Your task to perform on an android device: turn off javascript in the chrome app Image 0: 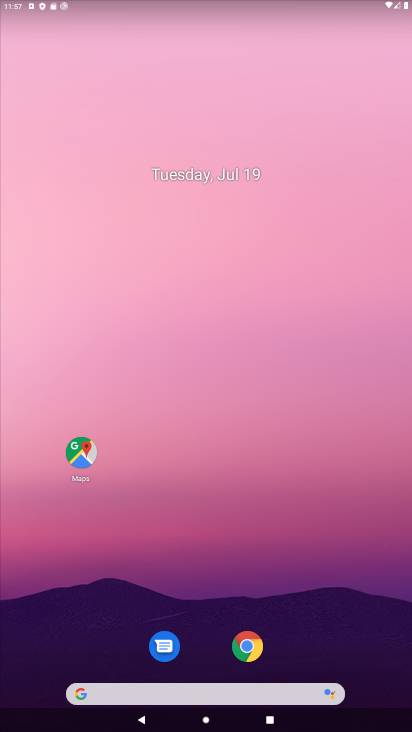
Step 0: click (79, 37)
Your task to perform on an android device: turn off javascript in the chrome app Image 1: 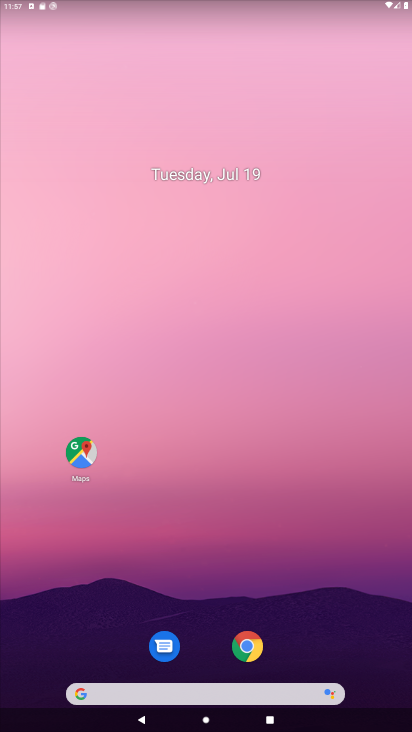
Step 1: click (244, 639)
Your task to perform on an android device: turn off javascript in the chrome app Image 2: 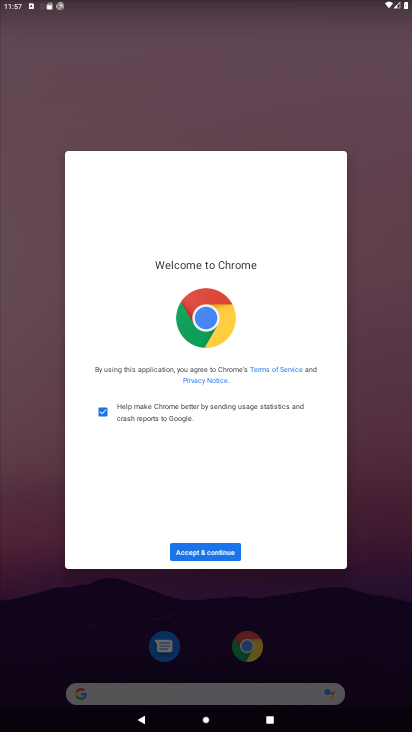
Step 2: click (212, 549)
Your task to perform on an android device: turn off javascript in the chrome app Image 3: 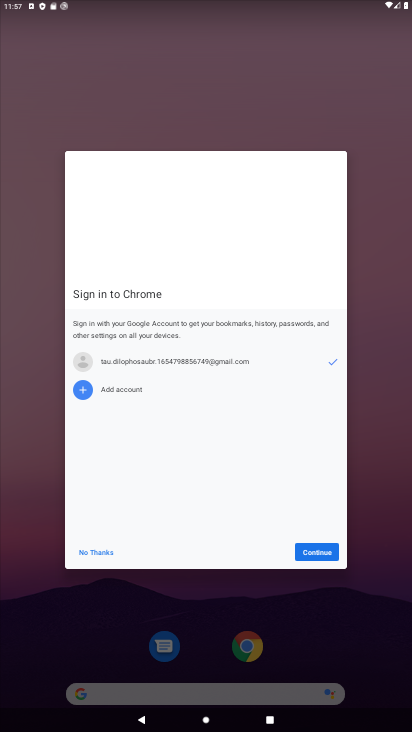
Step 3: click (317, 546)
Your task to perform on an android device: turn off javascript in the chrome app Image 4: 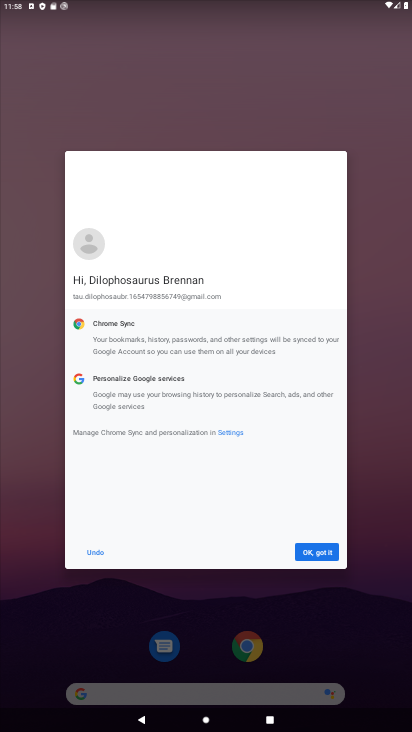
Step 4: click (317, 546)
Your task to perform on an android device: turn off javascript in the chrome app Image 5: 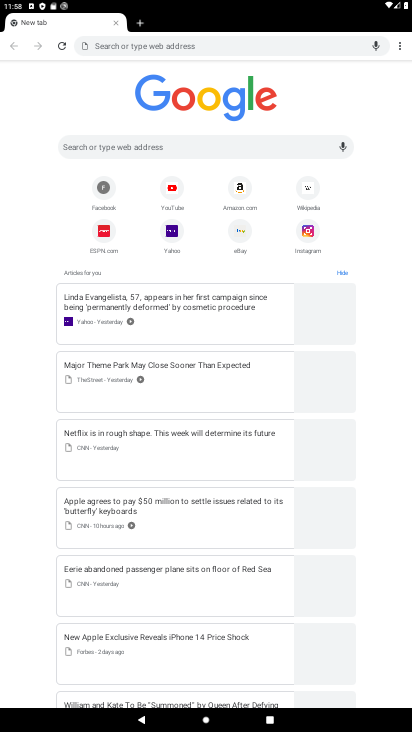
Step 5: click (398, 51)
Your task to perform on an android device: turn off javascript in the chrome app Image 6: 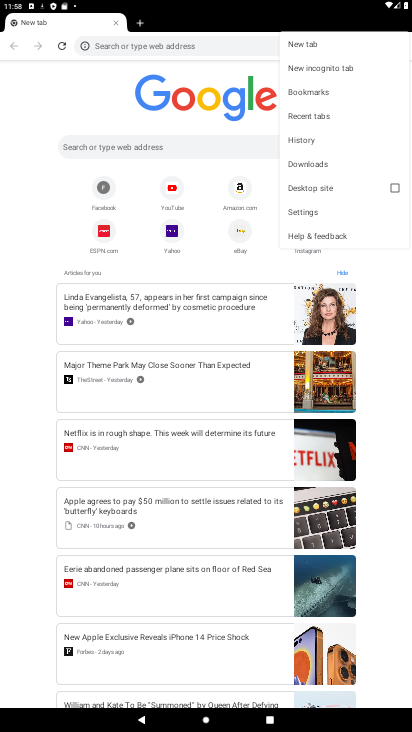
Step 6: click (316, 218)
Your task to perform on an android device: turn off javascript in the chrome app Image 7: 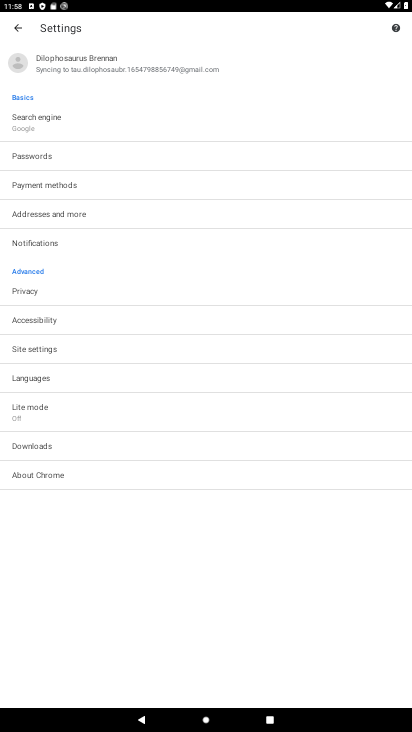
Step 7: click (93, 348)
Your task to perform on an android device: turn off javascript in the chrome app Image 8: 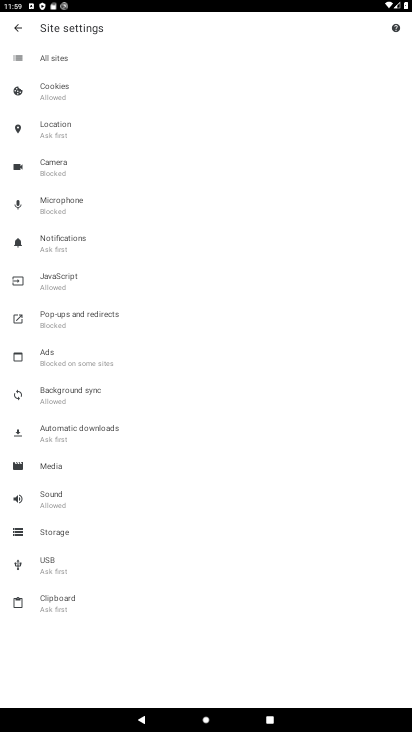
Step 8: click (65, 279)
Your task to perform on an android device: turn off javascript in the chrome app Image 9: 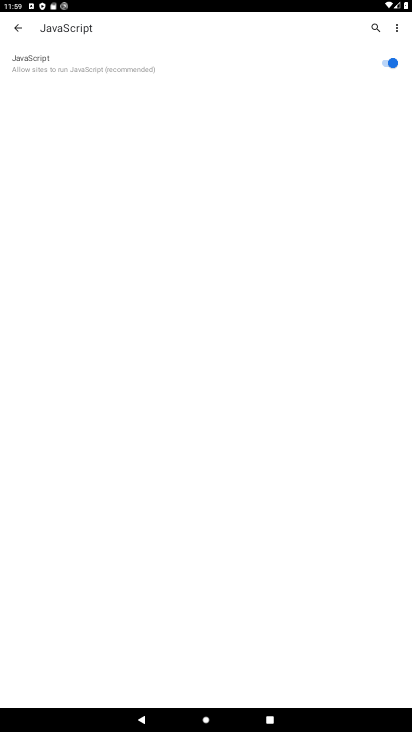
Step 9: click (384, 67)
Your task to perform on an android device: turn off javascript in the chrome app Image 10: 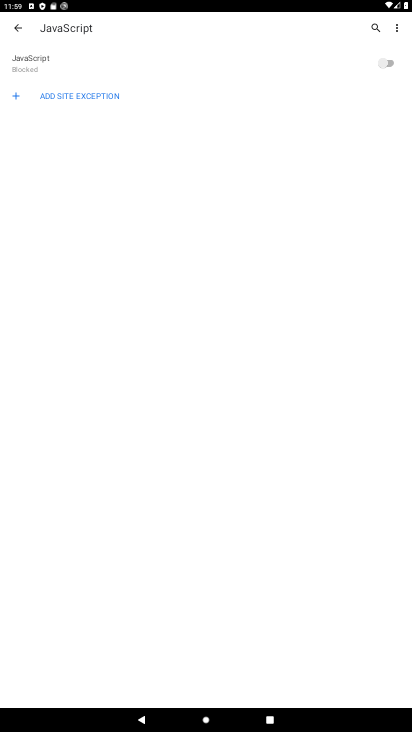
Step 10: task complete